Your task to perform on an android device: Open Google Maps Image 0: 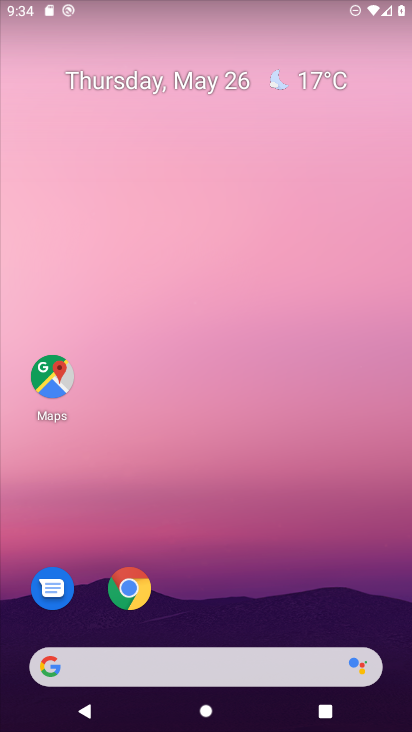
Step 0: click (51, 378)
Your task to perform on an android device: Open Google Maps Image 1: 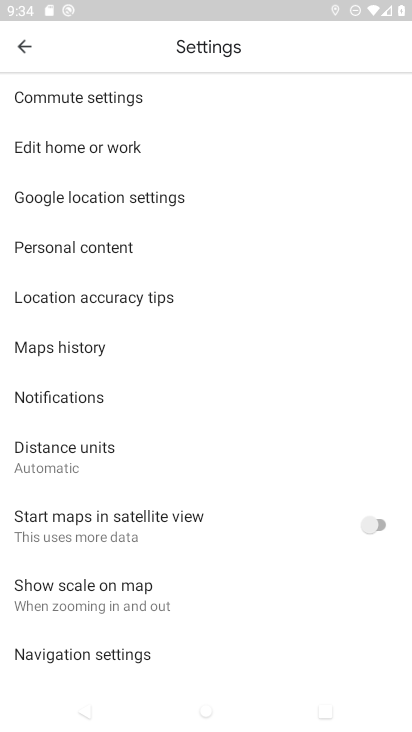
Step 1: task complete